Your task to perform on an android device: Clear the cart on ebay. Add usb-b to the cart on ebay Image 0: 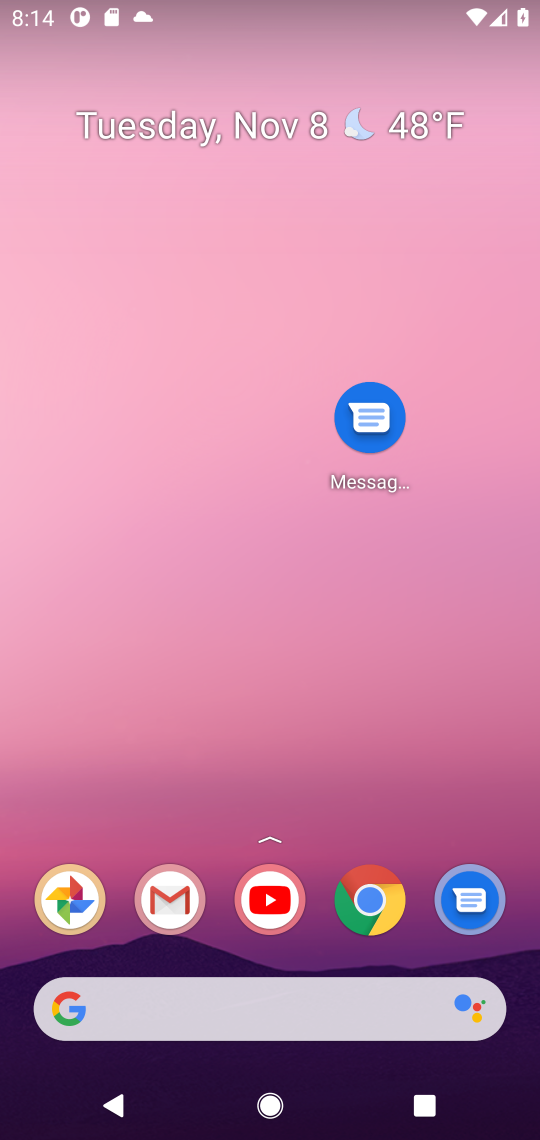
Step 0: drag from (254, 1008) to (299, 303)
Your task to perform on an android device: Clear the cart on ebay. Add usb-b to the cart on ebay Image 1: 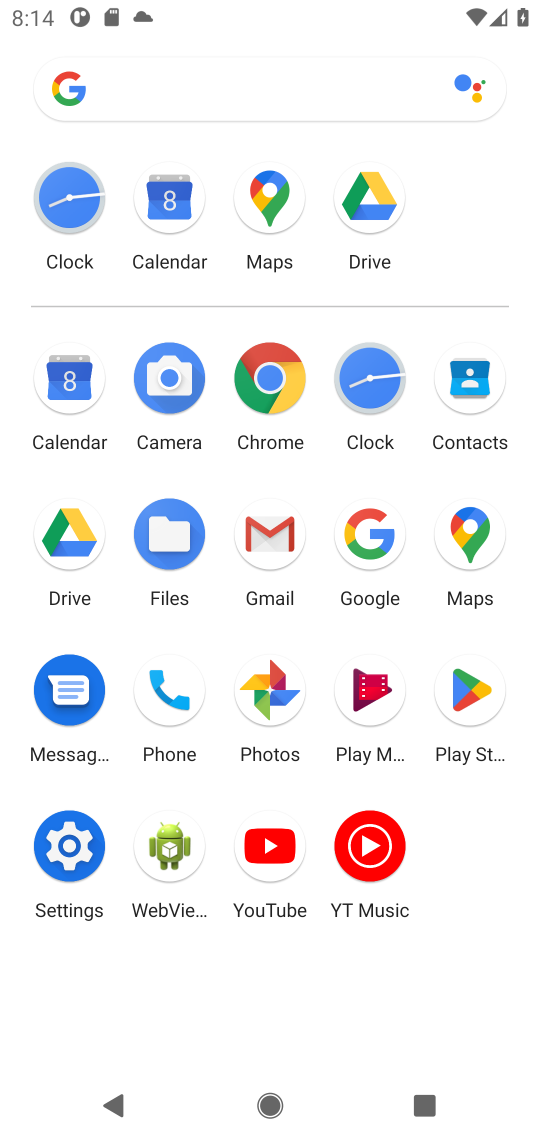
Step 1: click (373, 523)
Your task to perform on an android device: Clear the cart on ebay. Add usb-b to the cart on ebay Image 2: 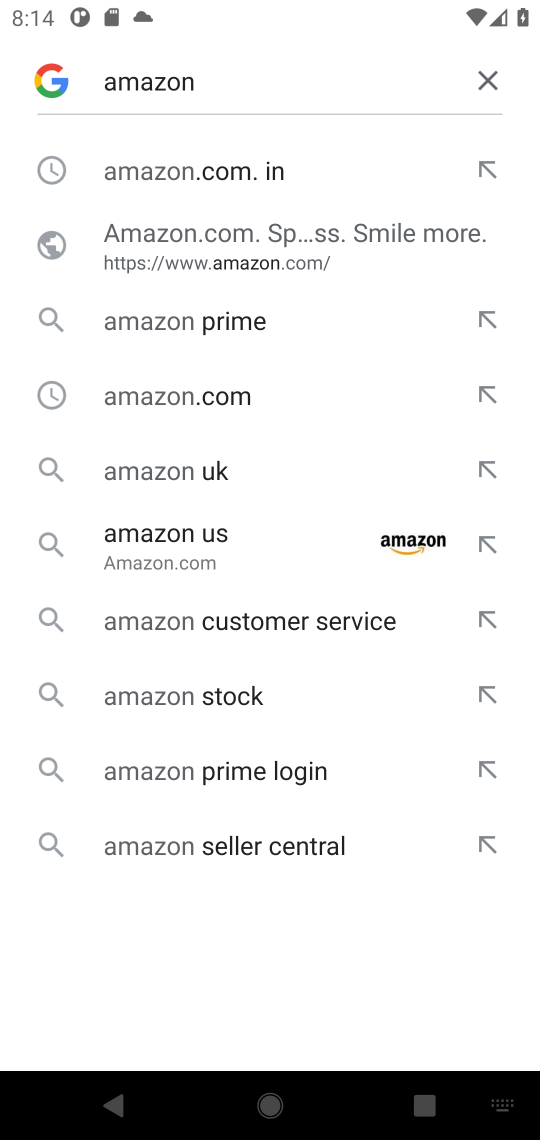
Step 2: click (496, 91)
Your task to perform on an android device: Clear the cart on ebay. Add usb-b to the cart on ebay Image 3: 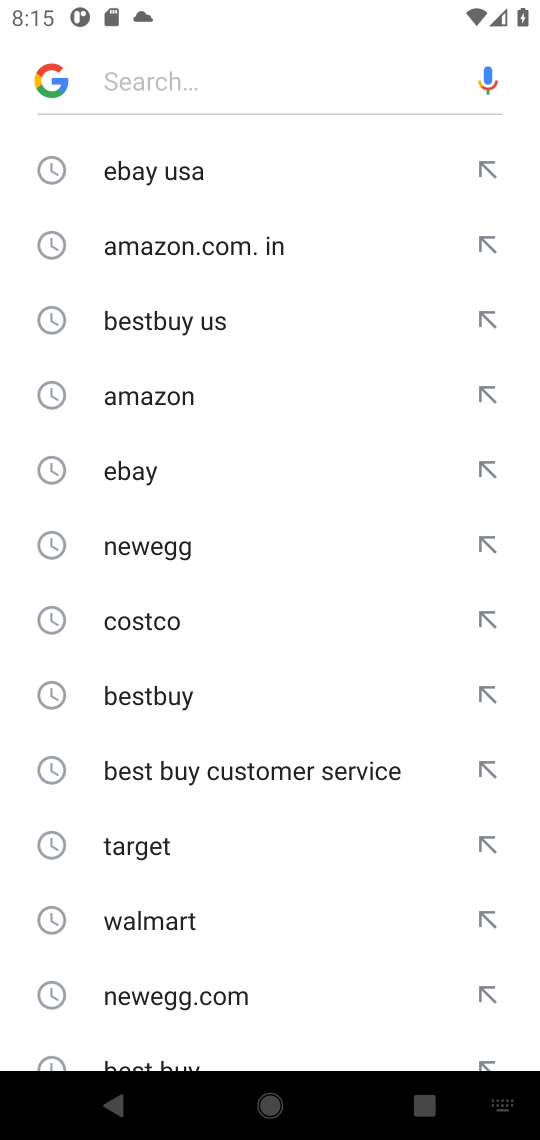
Step 3: click (157, 458)
Your task to perform on an android device: Clear the cart on ebay. Add usb-b to the cart on ebay Image 4: 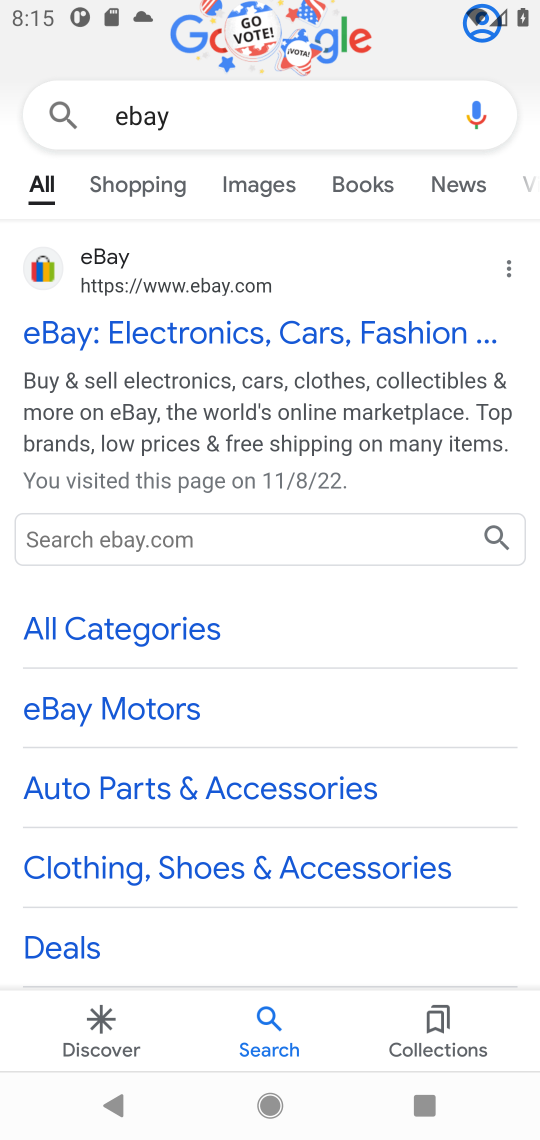
Step 4: click (43, 263)
Your task to perform on an android device: Clear the cart on ebay. Add usb-b to the cart on ebay Image 5: 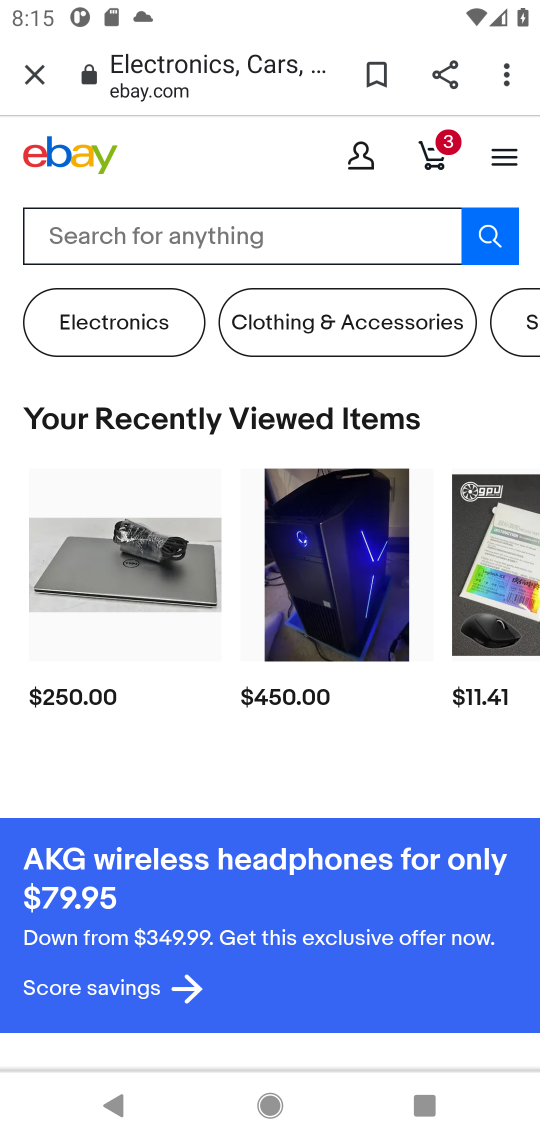
Step 5: click (271, 233)
Your task to perform on an android device: Clear the cart on ebay. Add usb-b to the cart on ebay Image 6: 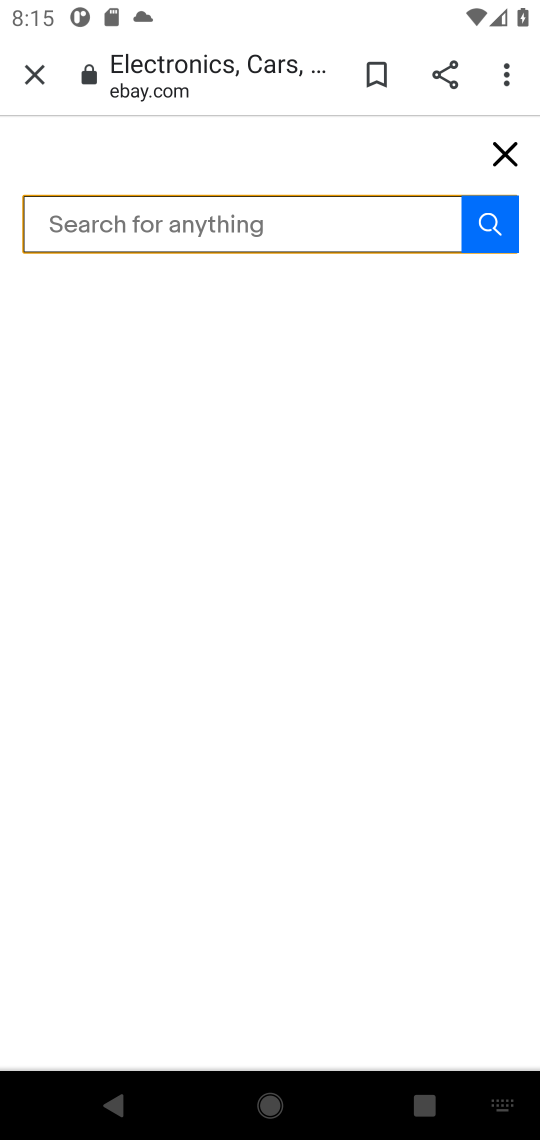
Step 6: type " usb-b  "
Your task to perform on an android device: Clear the cart on ebay. Add usb-b to the cart on ebay Image 7: 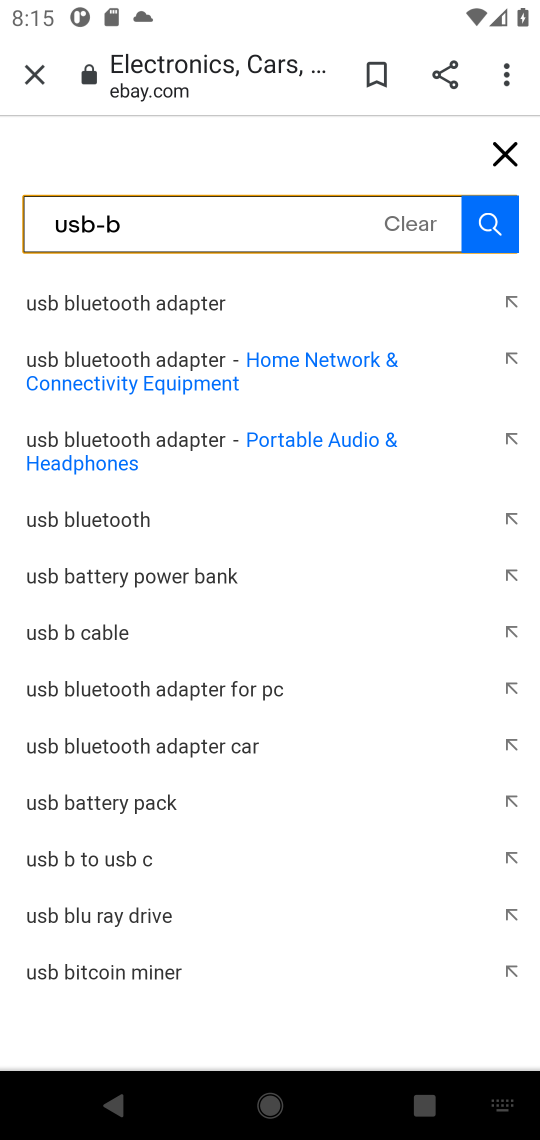
Step 7: click (94, 638)
Your task to perform on an android device: Clear the cart on ebay. Add usb-b to the cart on ebay Image 8: 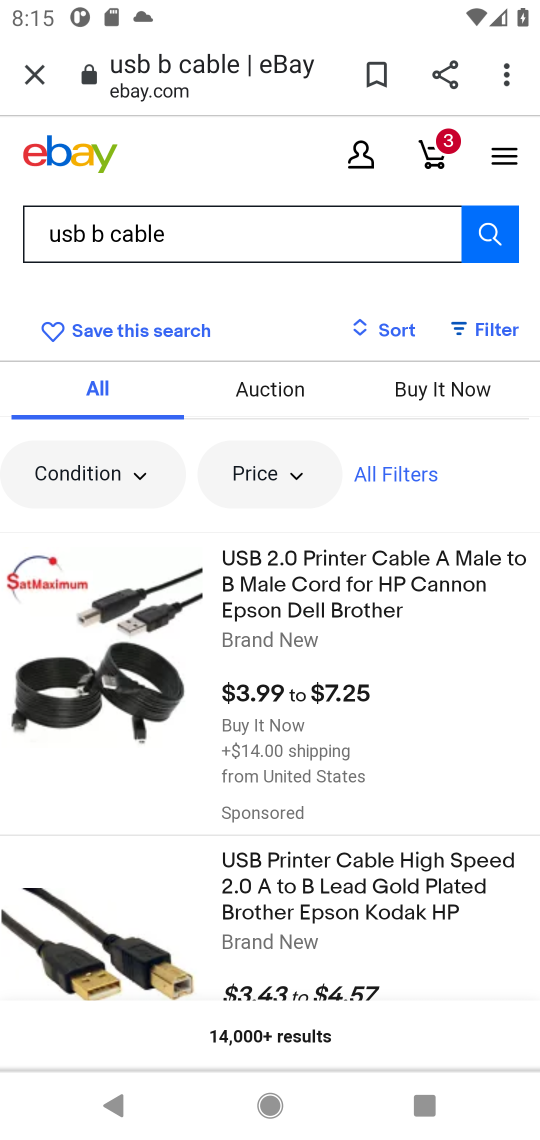
Step 8: click (275, 545)
Your task to perform on an android device: Clear the cart on ebay. Add usb-b to the cart on ebay Image 9: 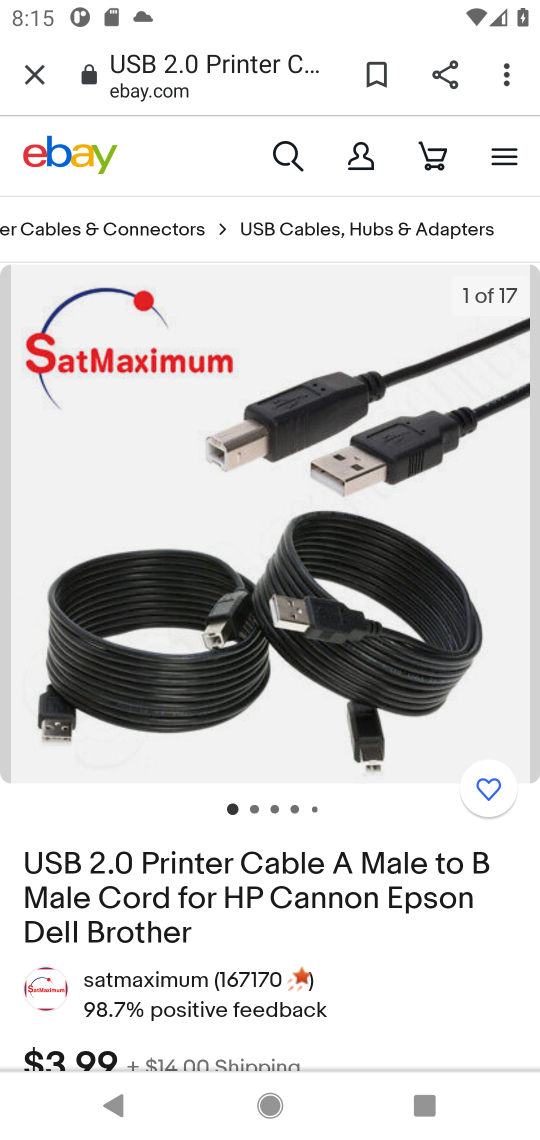
Step 9: drag from (291, 998) to (287, 412)
Your task to perform on an android device: Clear the cart on ebay. Add usb-b to the cart on ebay Image 10: 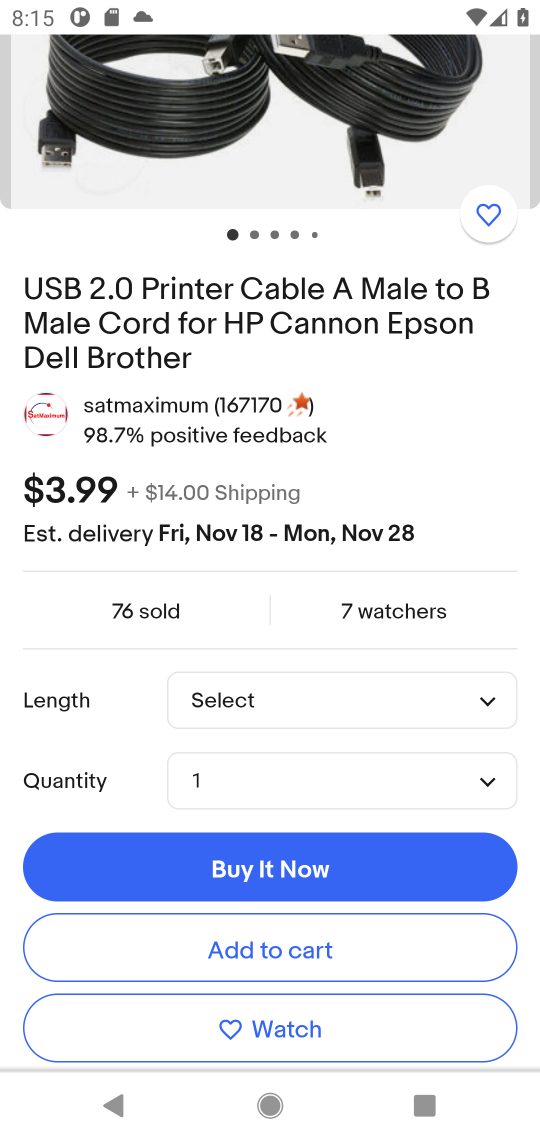
Step 10: click (287, 942)
Your task to perform on an android device: Clear the cart on ebay. Add usb-b to the cart on ebay Image 11: 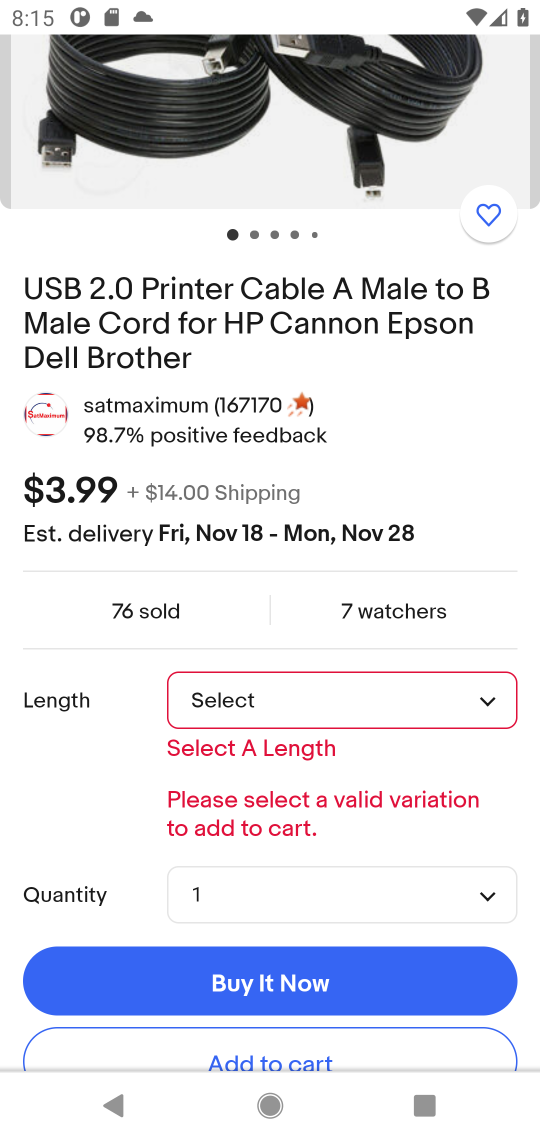
Step 11: drag from (310, 848) to (290, 306)
Your task to perform on an android device: Clear the cart on ebay. Add usb-b to the cart on ebay Image 12: 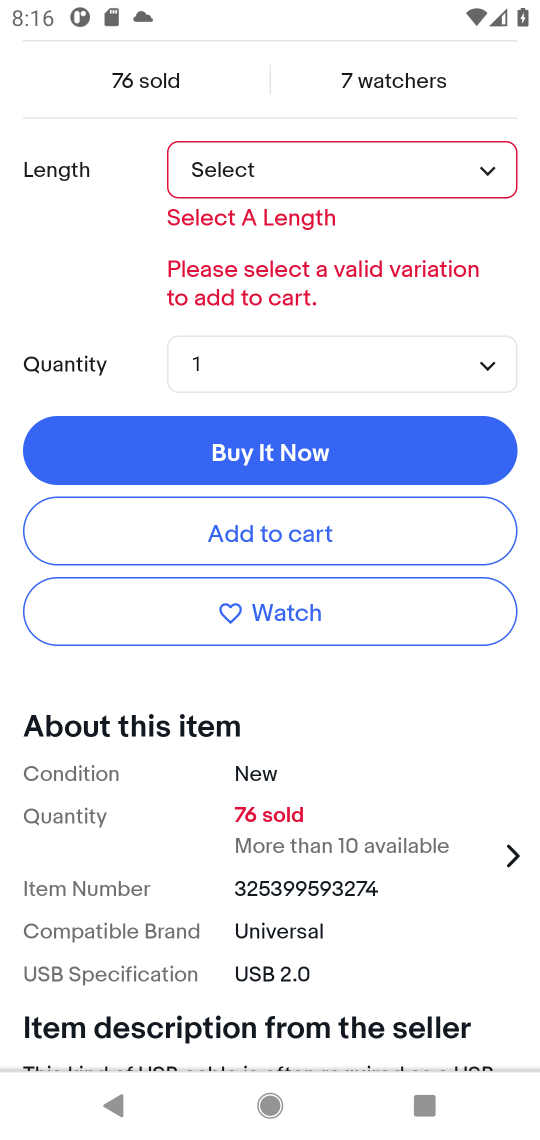
Step 12: click (272, 530)
Your task to perform on an android device: Clear the cart on ebay. Add usb-b to the cart on ebay Image 13: 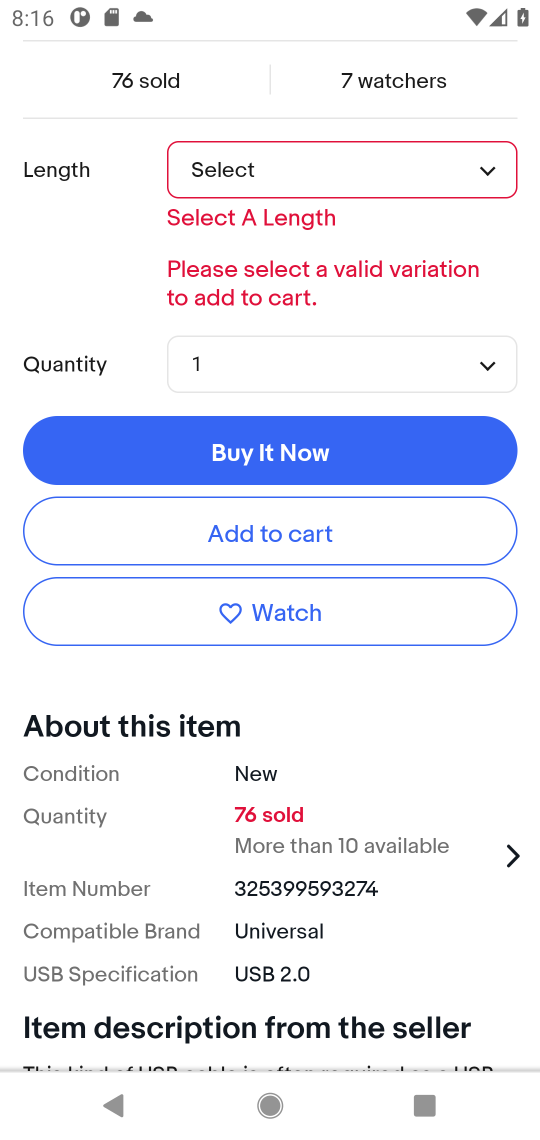
Step 13: click (272, 530)
Your task to perform on an android device: Clear the cart on ebay. Add usb-b to the cart on ebay Image 14: 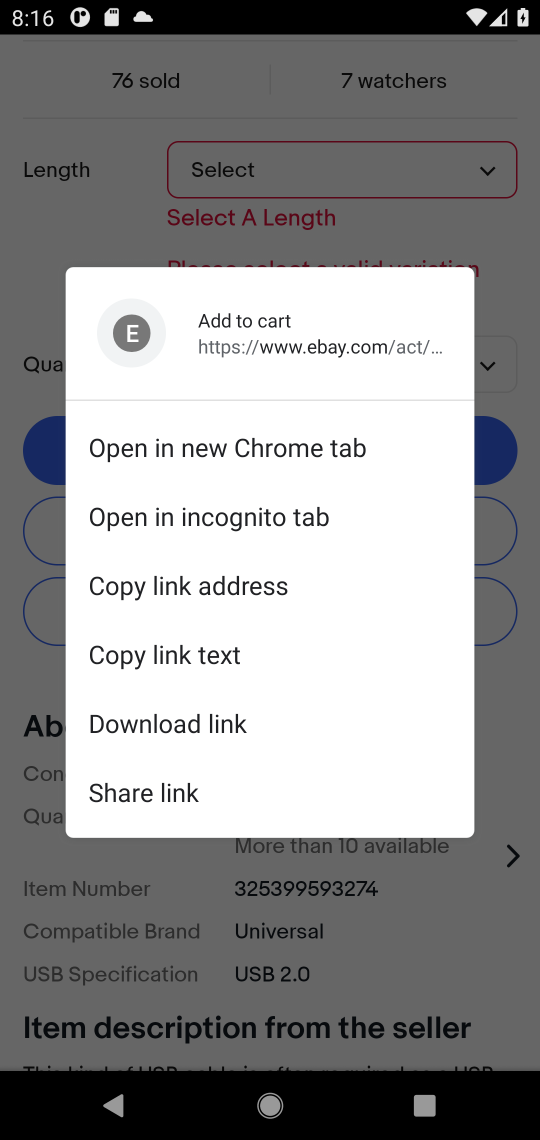
Step 14: click (484, 252)
Your task to perform on an android device: Clear the cart on ebay. Add usb-b to the cart on ebay Image 15: 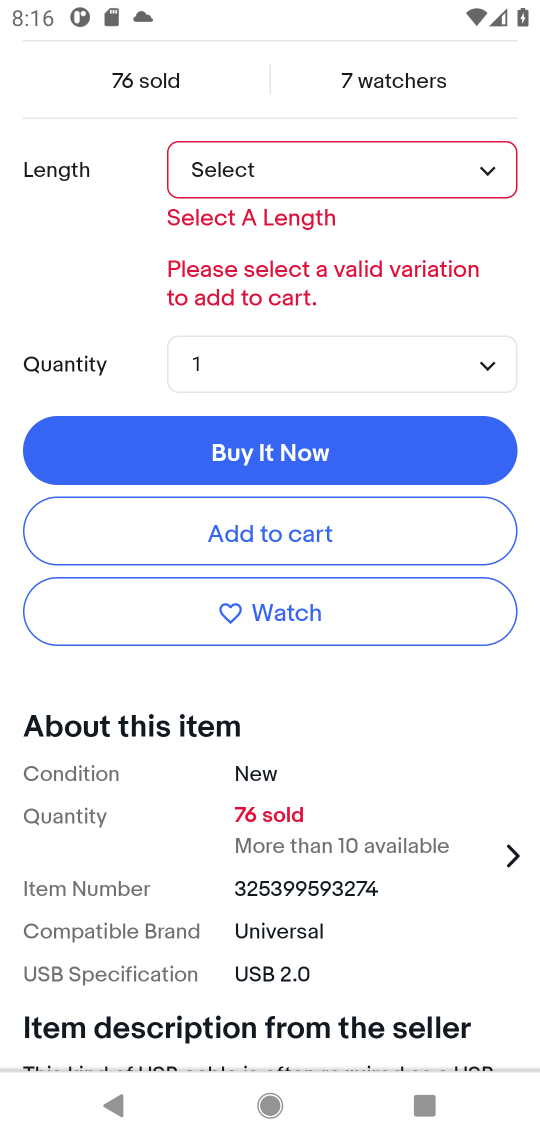
Step 15: click (306, 512)
Your task to perform on an android device: Clear the cart on ebay. Add usb-b to the cart on ebay Image 16: 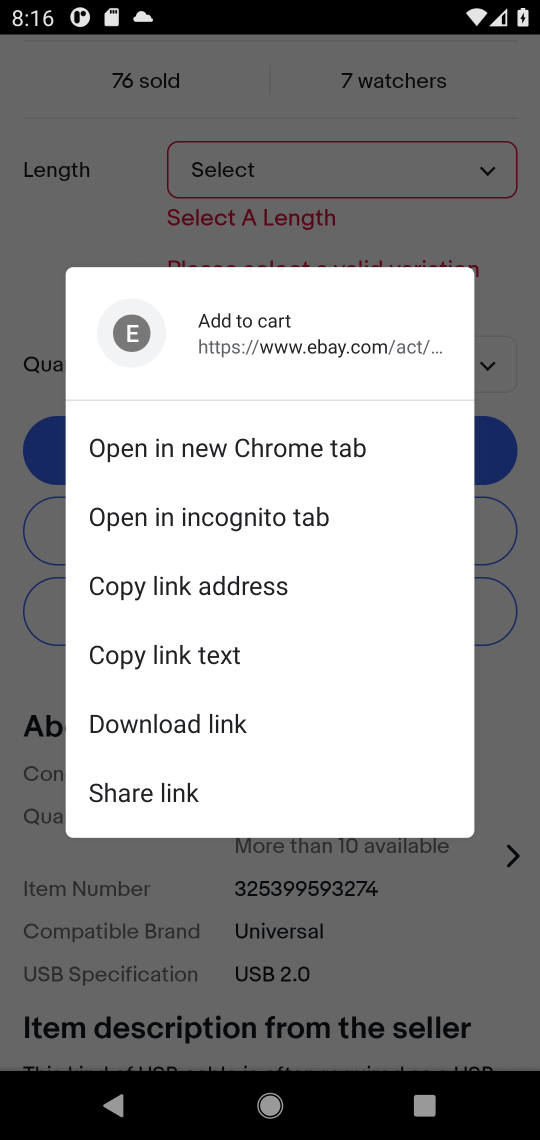
Step 16: click (495, 328)
Your task to perform on an android device: Clear the cart on ebay. Add usb-b to the cart on ebay Image 17: 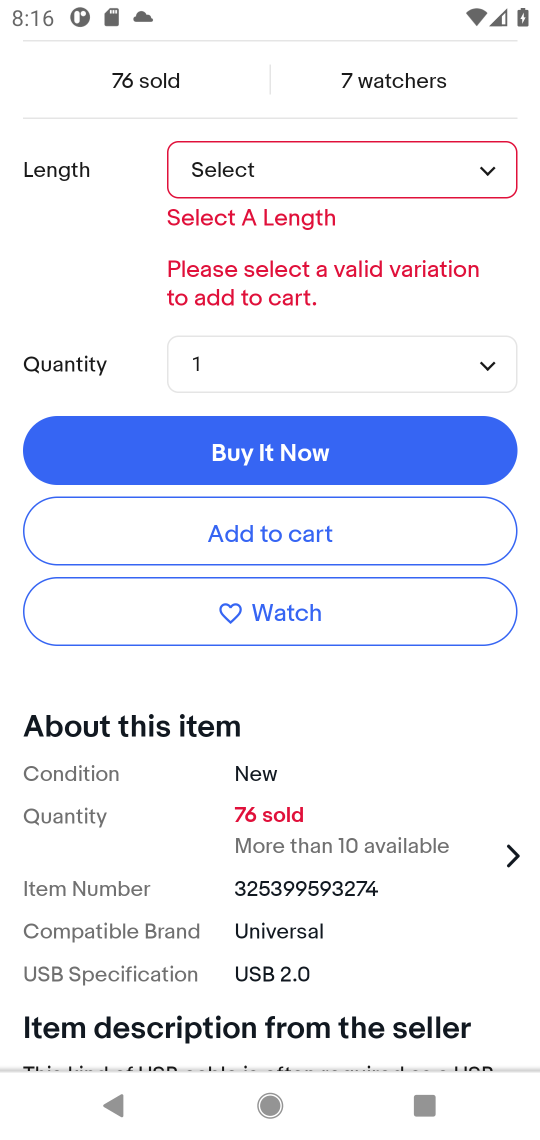
Step 17: click (257, 527)
Your task to perform on an android device: Clear the cart on ebay. Add usb-b to the cart on ebay Image 18: 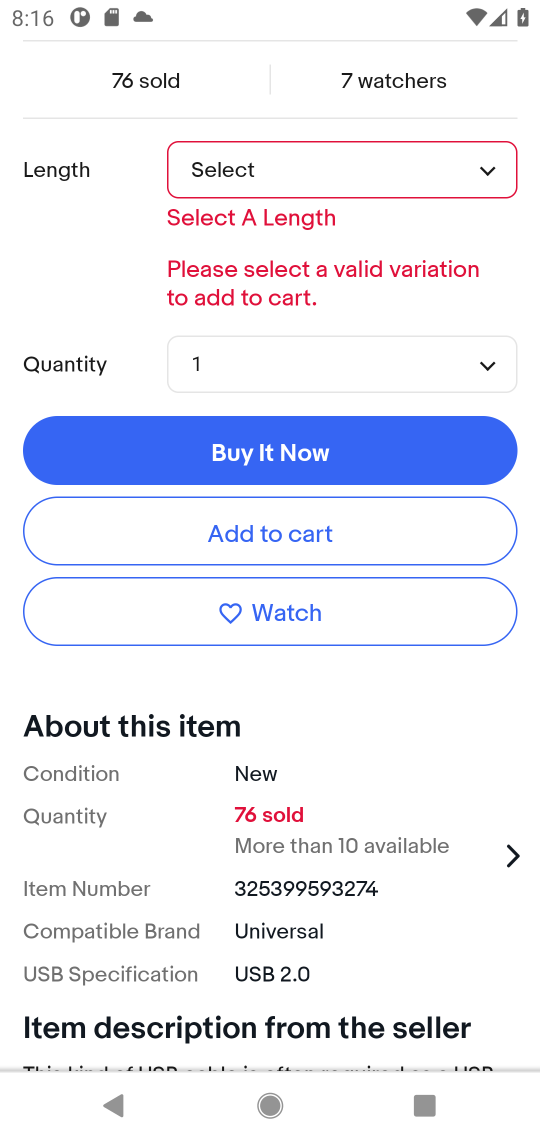
Step 18: task complete